Your task to perform on an android device: empty trash in the gmail app Image 0: 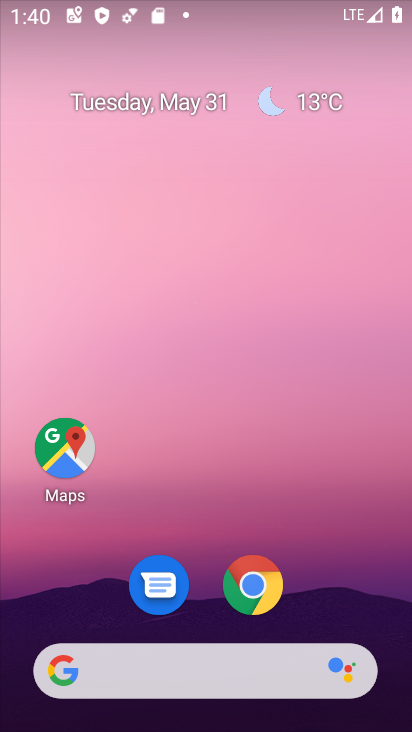
Step 0: drag from (324, 563) to (300, 105)
Your task to perform on an android device: empty trash in the gmail app Image 1: 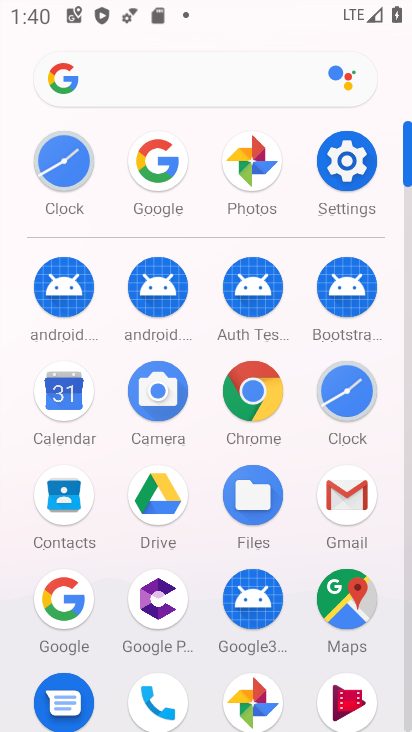
Step 1: click (350, 493)
Your task to perform on an android device: empty trash in the gmail app Image 2: 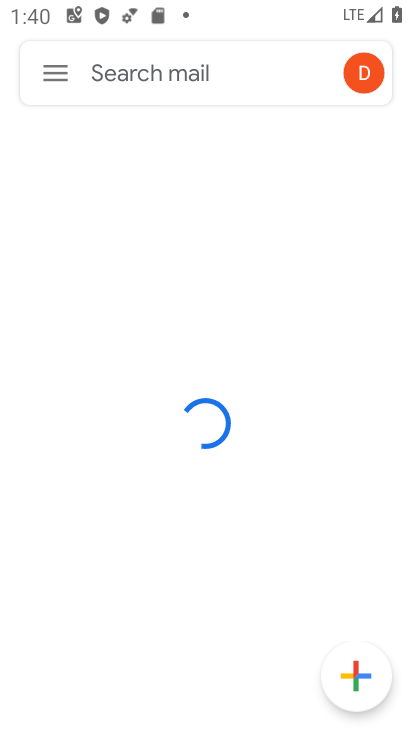
Step 2: click (55, 69)
Your task to perform on an android device: empty trash in the gmail app Image 3: 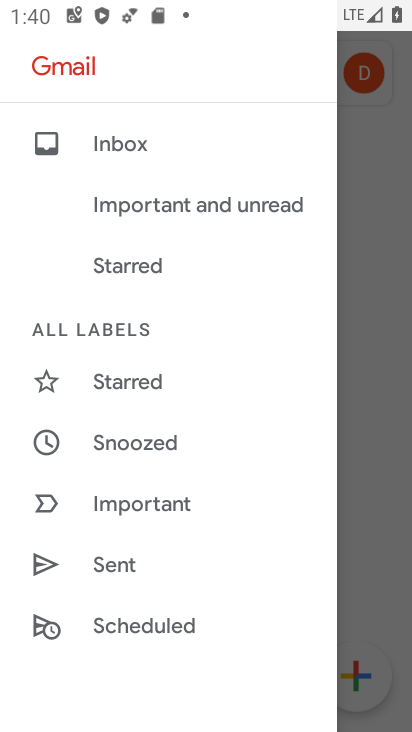
Step 3: drag from (176, 441) to (210, 97)
Your task to perform on an android device: empty trash in the gmail app Image 4: 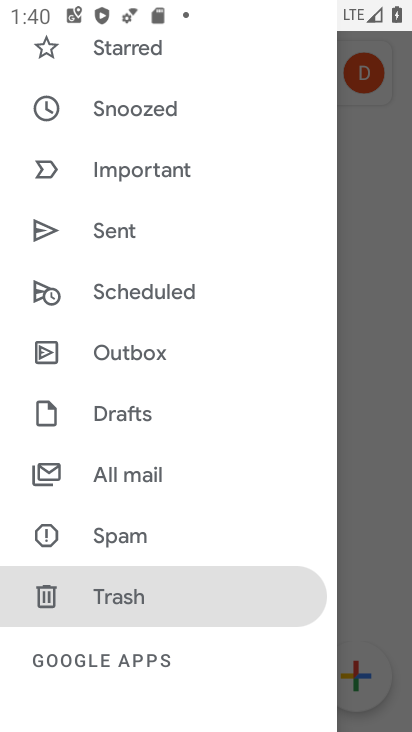
Step 4: click (180, 589)
Your task to perform on an android device: empty trash in the gmail app Image 5: 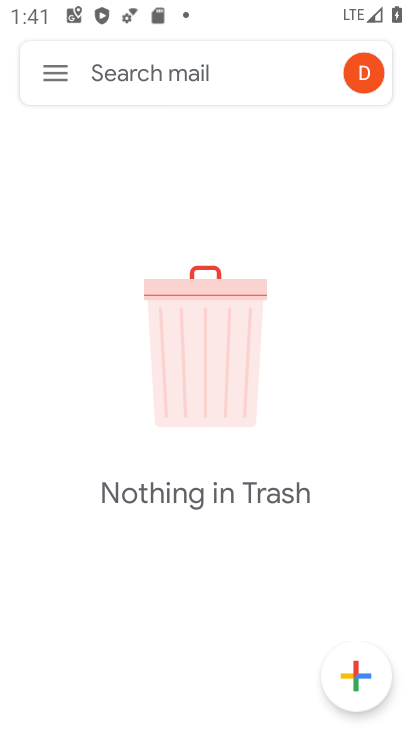
Step 5: task complete